Your task to perform on an android device: check android version Image 0: 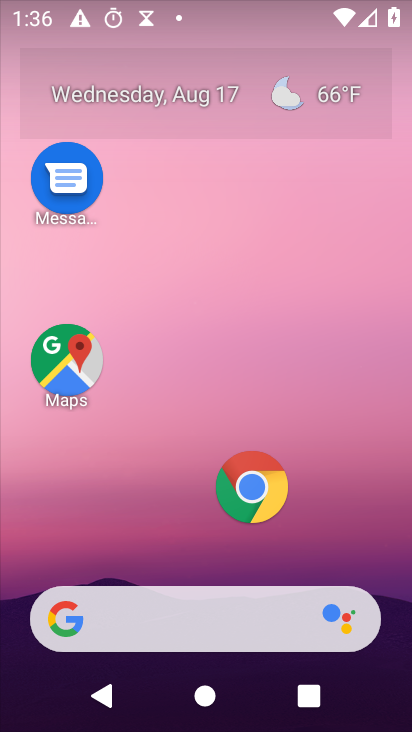
Step 0: press home button
Your task to perform on an android device: check android version Image 1: 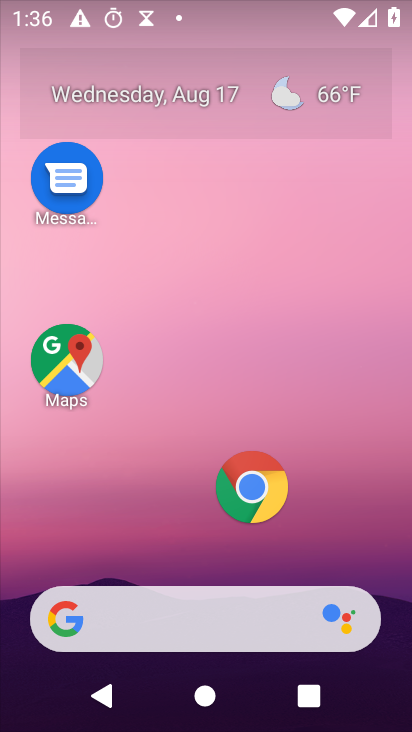
Step 1: drag from (318, 560) to (204, 148)
Your task to perform on an android device: check android version Image 2: 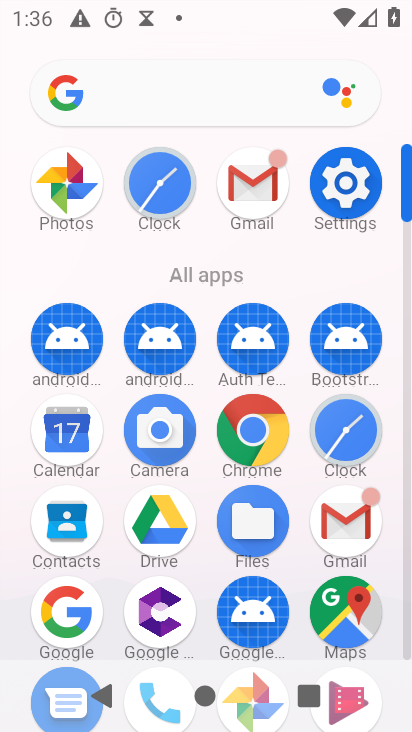
Step 2: click (303, 154)
Your task to perform on an android device: check android version Image 3: 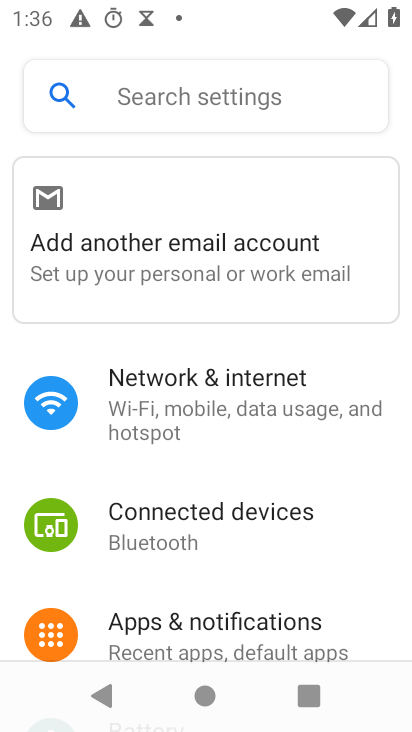
Step 3: drag from (286, 419) to (316, 14)
Your task to perform on an android device: check android version Image 4: 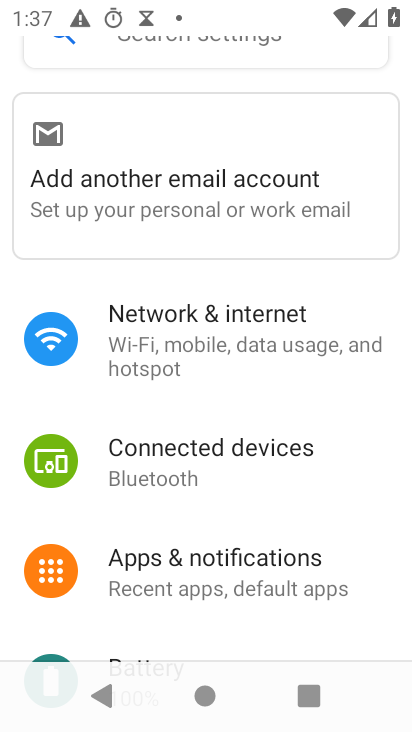
Step 4: drag from (252, 551) to (207, 57)
Your task to perform on an android device: check android version Image 5: 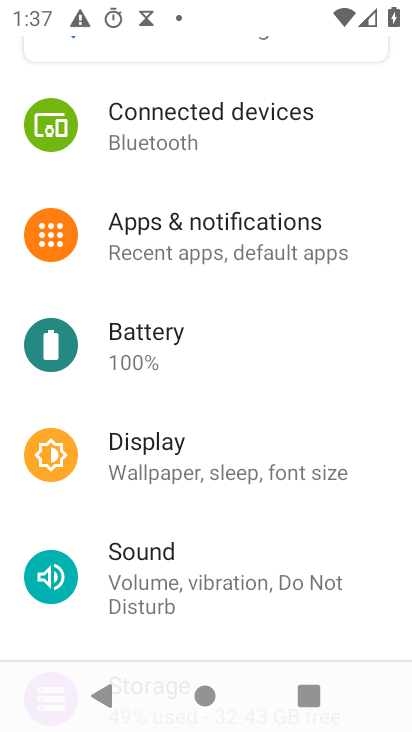
Step 5: drag from (308, 631) to (401, 704)
Your task to perform on an android device: check android version Image 6: 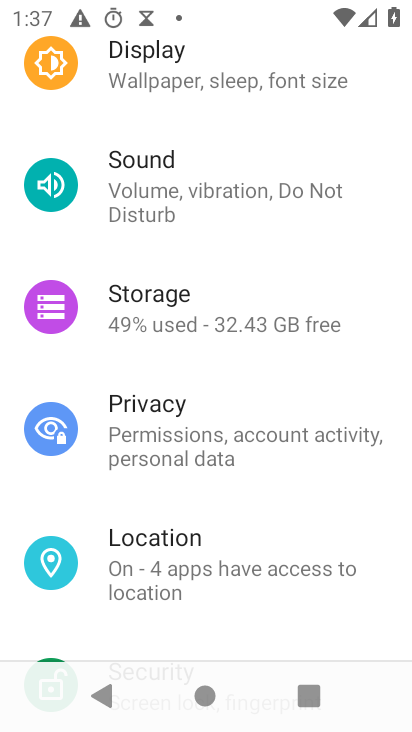
Step 6: drag from (284, 613) to (210, 407)
Your task to perform on an android device: check android version Image 7: 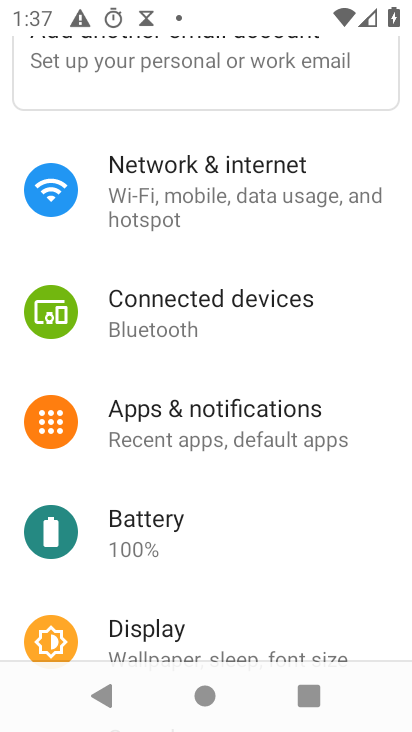
Step 7: drag from (237, 618) to (384, 8)
Your task to perform on an android device: check android version Image 8: 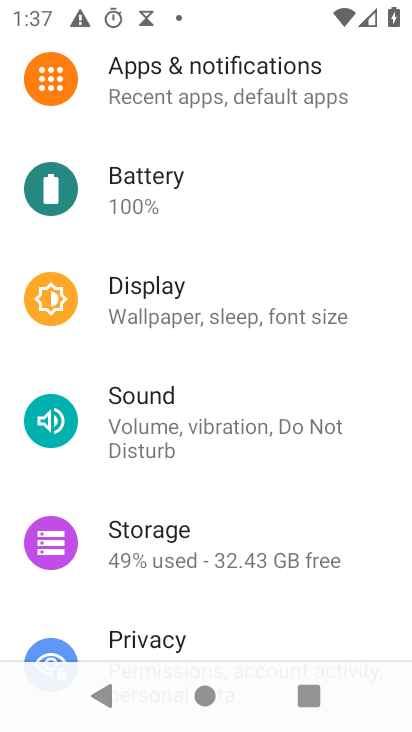
Step 8: drag from (310, 604) to (347, 568)
Your task to perform on an android device: check android version Image 9: 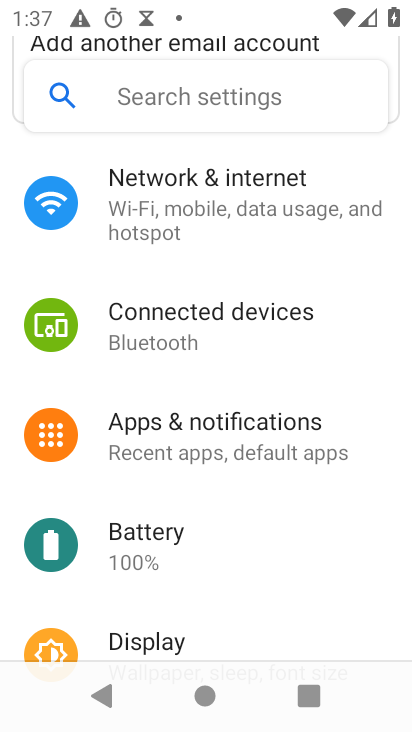
Step 9: drag from (279, 607) to (338, 19)
Your task to perform on an android device: check android version Image 10: 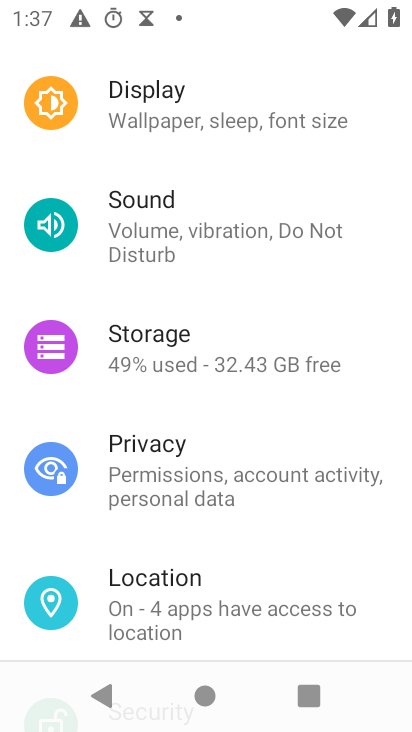
Step 10: drag from (341, 552) to (386, 165)
Your task to perform on an android device: check android version Image 11: 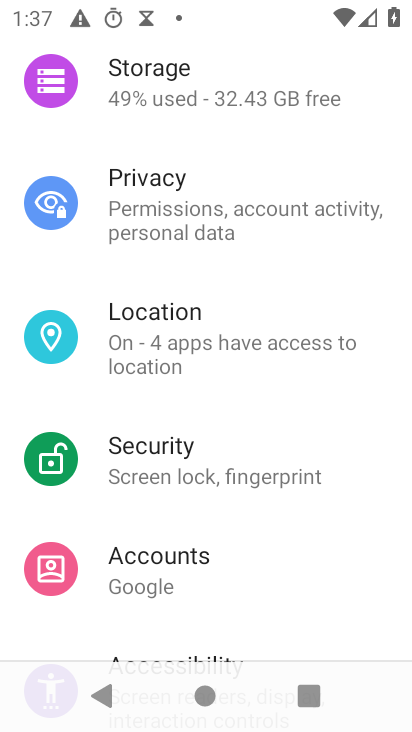
Step 11: drag from (263, 563) to (368, 132)
Your task to perform on an android device: check android version Image 12: 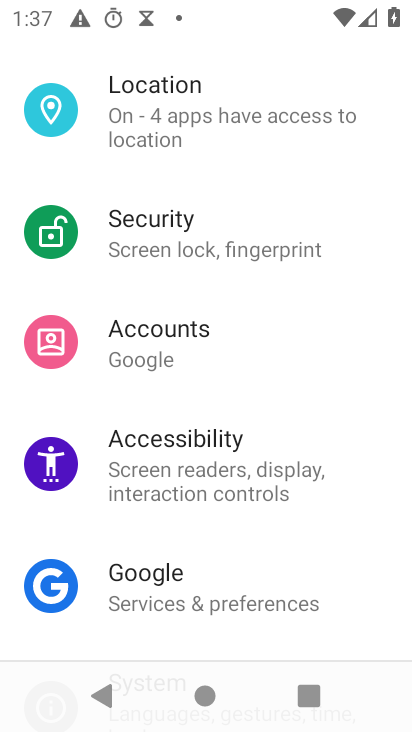
Step 12: drag from (245, 560) to (384, 129)
Your task to perform on an android device: check android version Image 13: 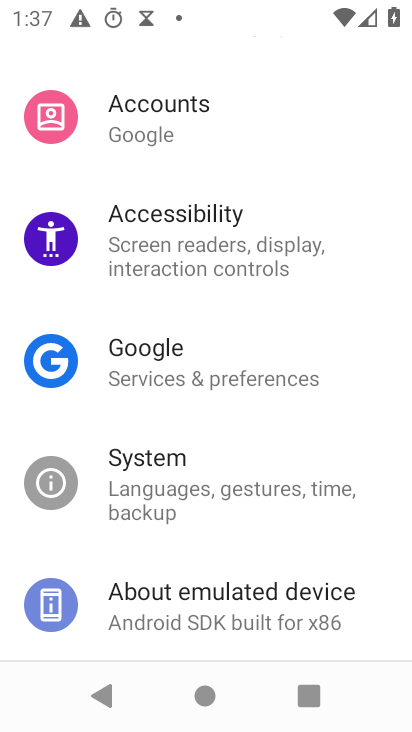
Step 13: click (239, 607)
Your task to perform on an android device: check android version Image 14: 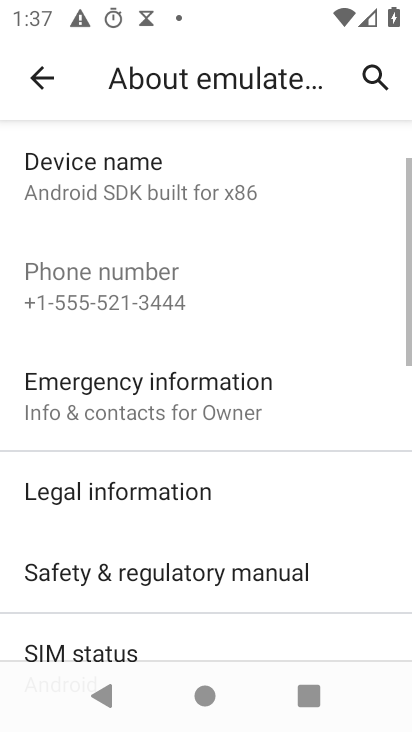
Step 14: task complete